Your task to perform on an android device: set the timer Image 0: 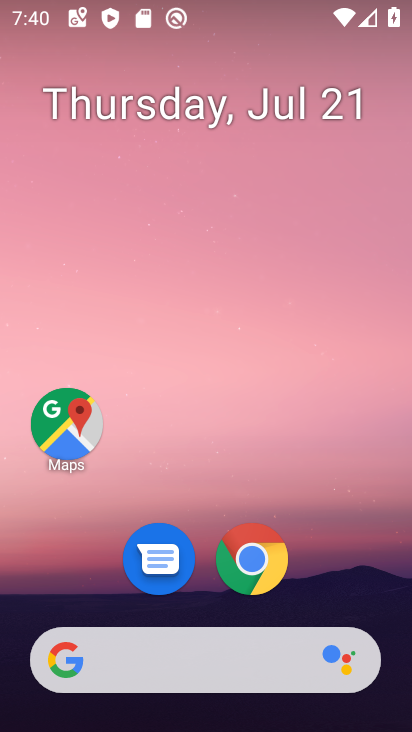
Step 0: drag from (241, 564) to (339, 15)
Your task to perform on an android device: set the timer Image 1: 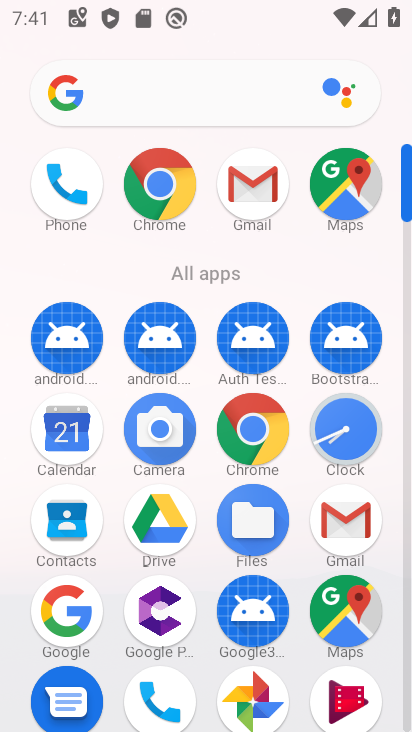
Step 1: click (367, 440)
Your task to perform on an android device: set the timer Image 2: 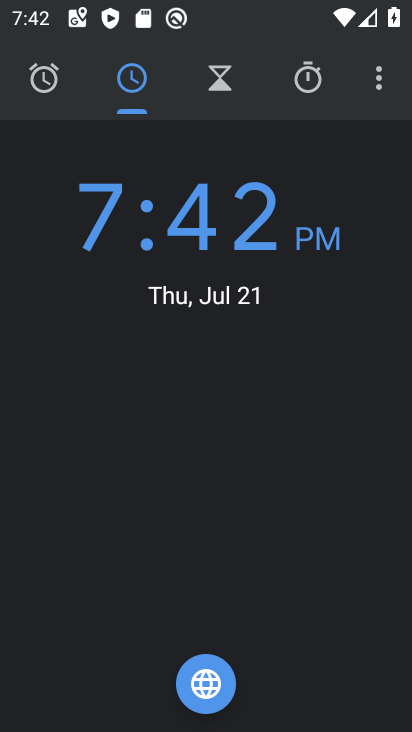
Step 2: click (230, 85)
Your task to perform on an android device: set the timer Image 3: 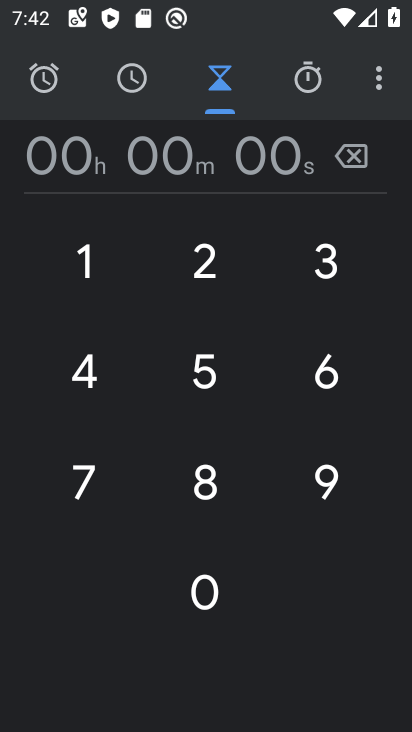
Step 3: click (225, 257)
Your task to perform on an android device: set the timer Image 4: 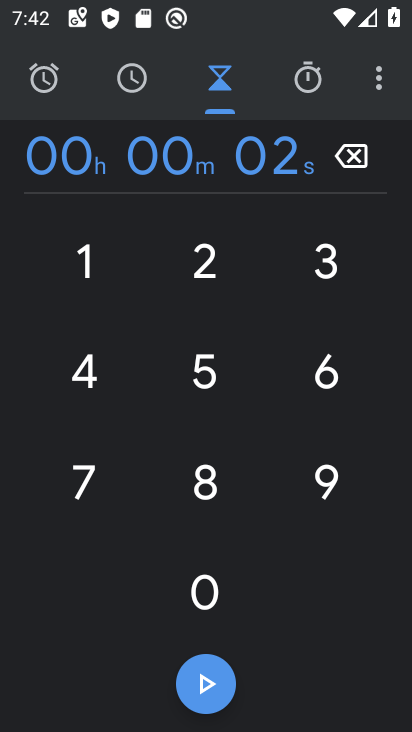
Step 4: click (211, 699)
Your task to perform on an android device: set the timer Image 5: 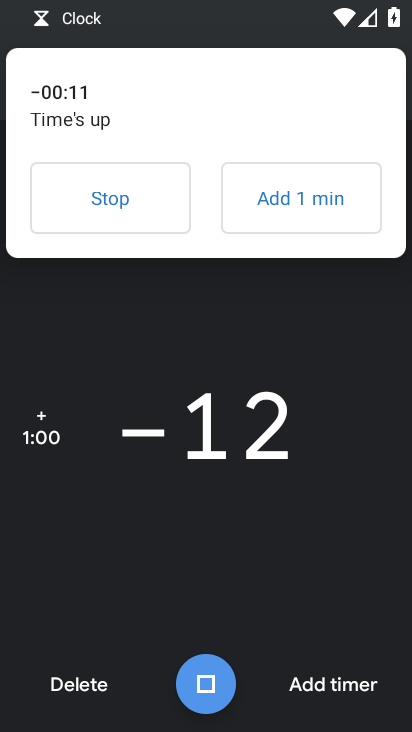
Step 5: task complete